Your task to perform on an android device: Search for Mexican restaurants on Maps Image 0: 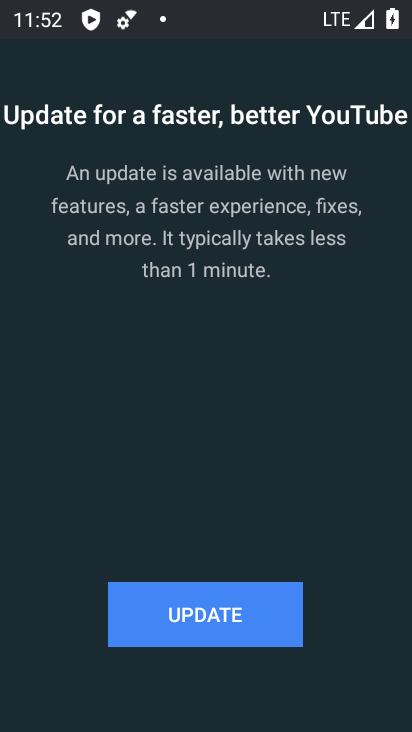
Step 0: press home button
Your task to perform on an android device: Search for Mexican restaurants on Maps Image 1: 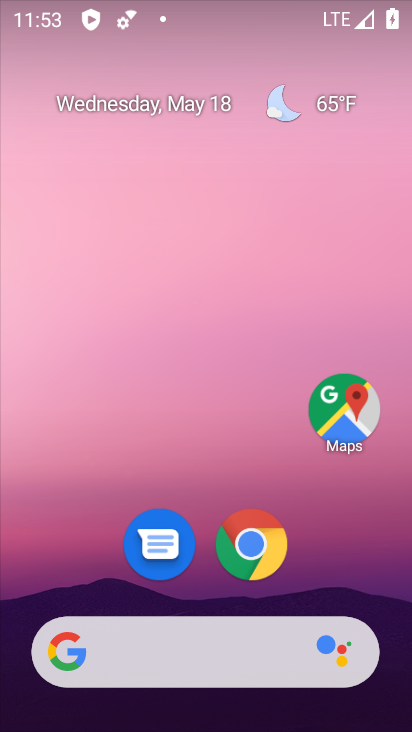
Step 1: drag from (325, 524) to (299, 34)
Your task to perform on an android device: Search for Mexican restaurants on Maps Image 2: 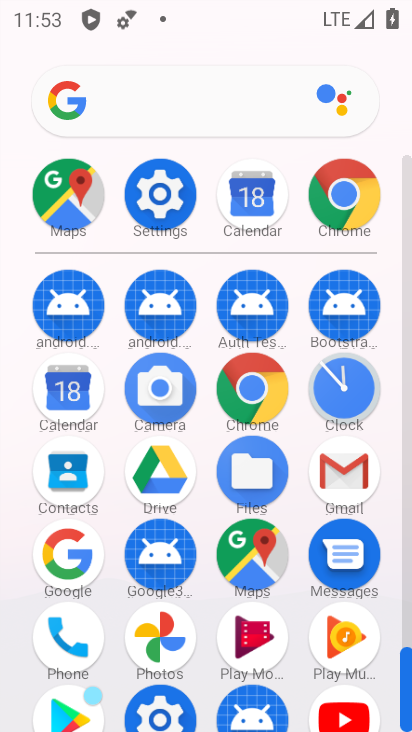
Step 2: click (268, 556)
Your task to perform on an android device: Search for Mexican restaurants on Maps Image 3: 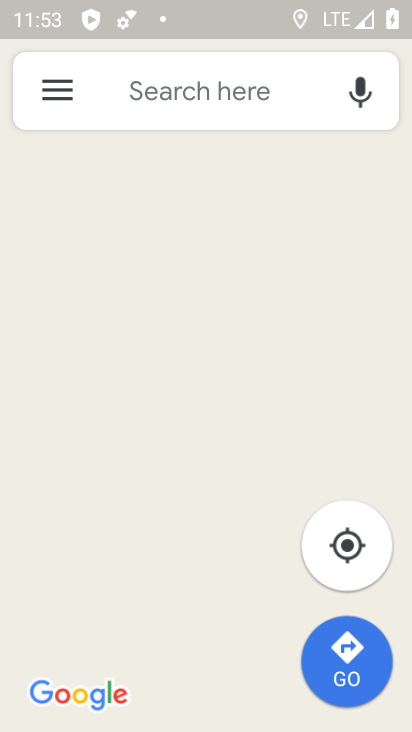
Step 3: click (207, 113)
Your task to perform on an android device: Search for Mexican restaurants on Maps Image 4: 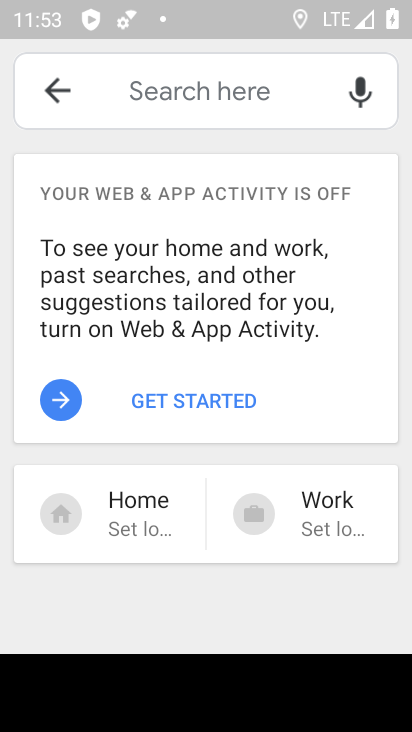
Step 4: type "mexcian"
Your task to perform on an android device: Search for Mexican restaurants on Maps Image 5: 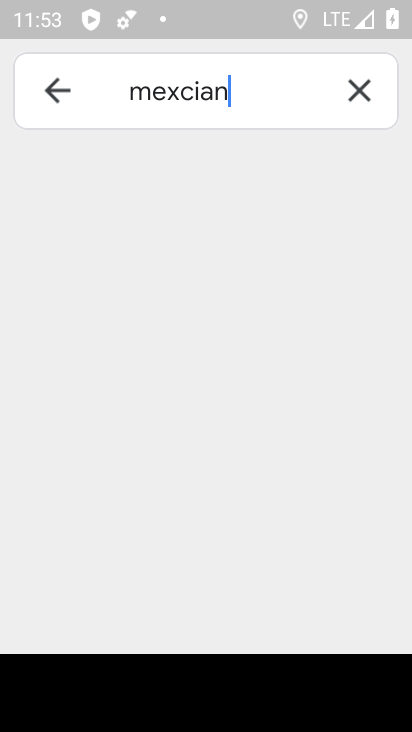
Step 5: task complete